Your task to perform on an android device: turn on improve location accuracy Image 0: 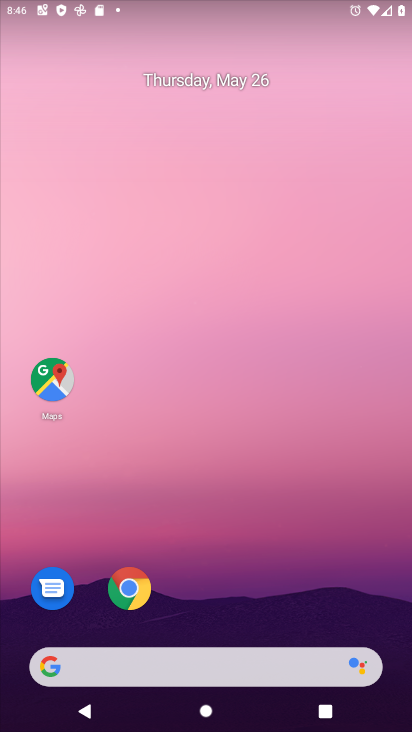
Step 0: click (283, 368)
Your task to perform on an android device: turn on improve location accuracy Image 1: 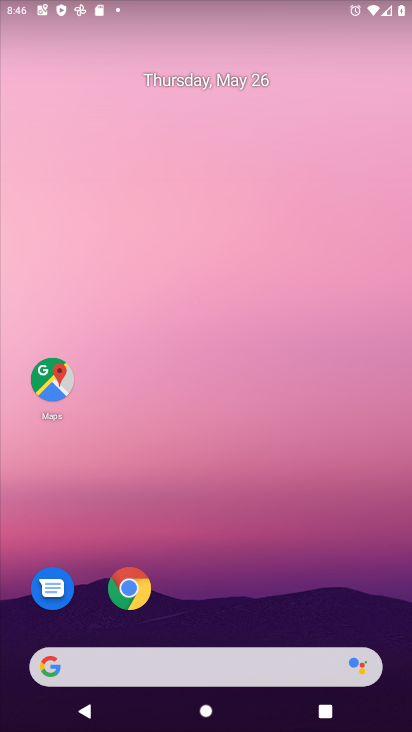
Step 1: drag from (397, 645) to (283, 54)
Your task to perform on an android device: turn on improve location accuracy Image 2: 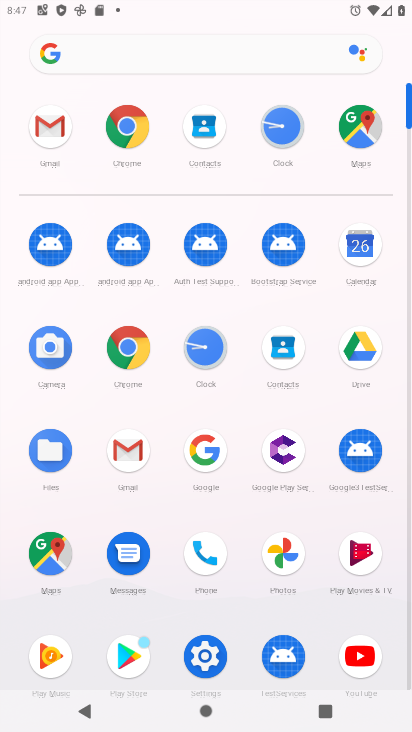
Step 2: click (210, 680)
Your task to perform on an android device: turn on improve location accuracy Image 3: 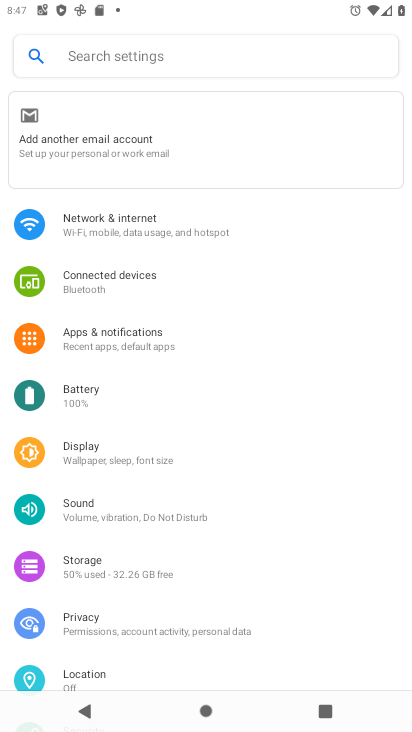
Step 3: click (94, 669)
Your task to perform on an android device: turn on improve location accuracy Image 4: 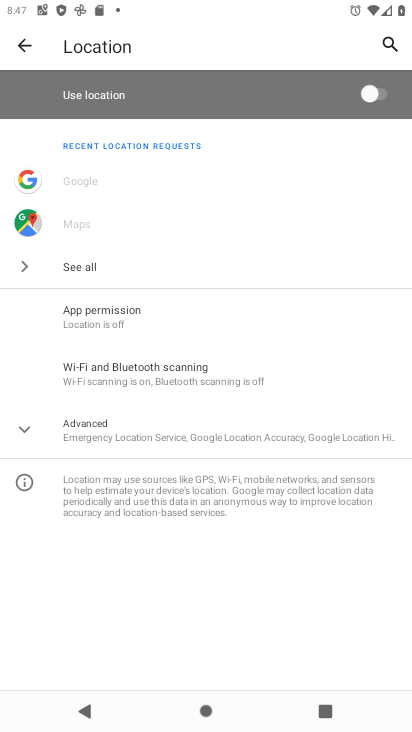
Step 4: click (118, 421)
Your task to perform on an android device: turn on improve location accuracy Image 5: 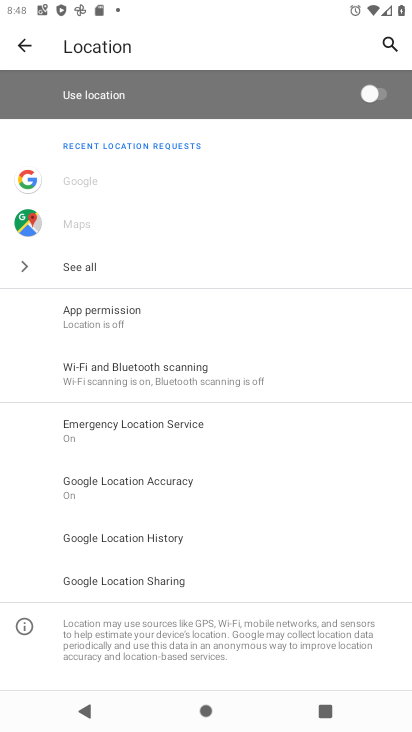
Step 5: click (190, 490)
Your task to perform on an android device: turn on improve location accuracy Image 6: 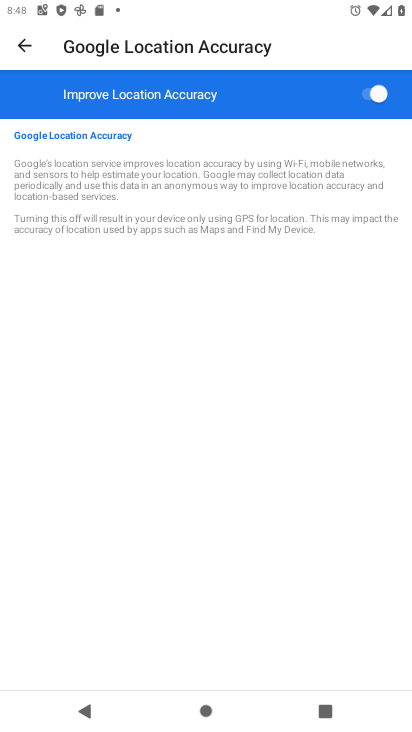
Step 6: task complete